Your task to perform on an android device: stop showing notifications on the lock screen Image 0: 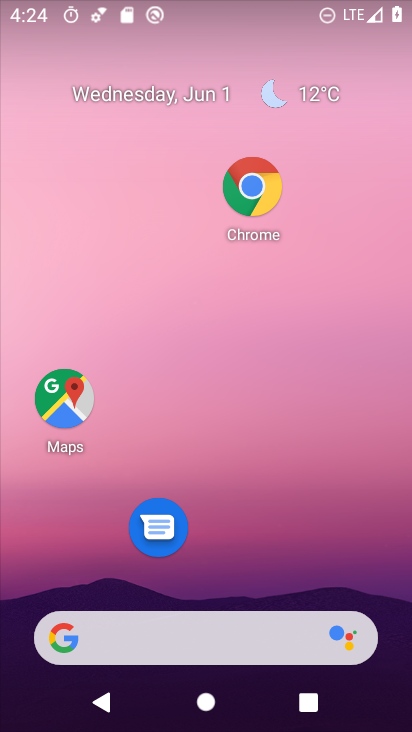
Step 0: drag from (260, 642) to (286, 375)
Your task to perform on an android device: stop showing notifications on the lock screen Image 1: 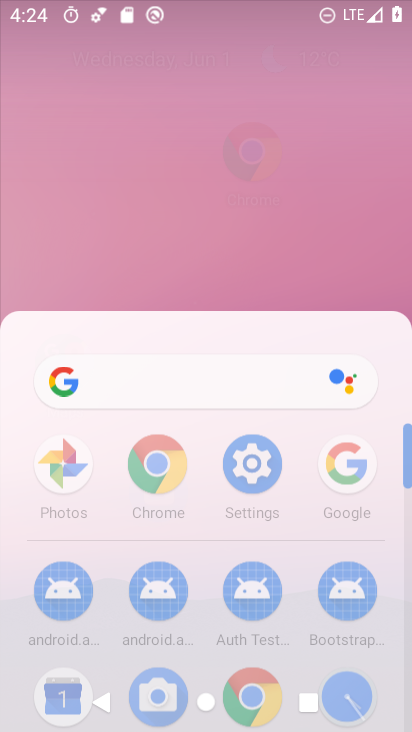
Step 1: click (326, 181)
Your task to perform on an android device: stop showing notifications on the lock screen Image 2: 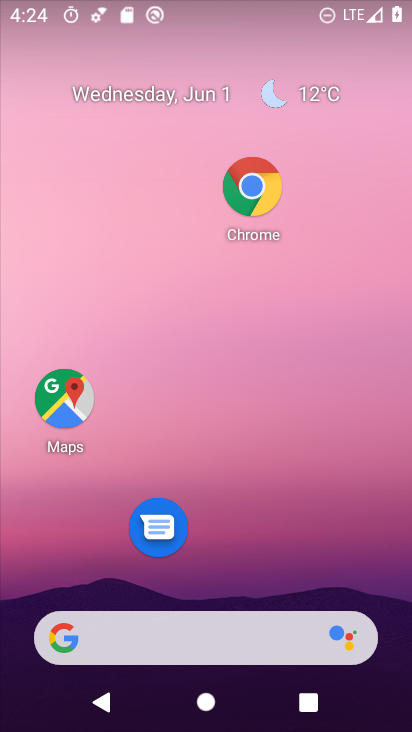
Step 2: drag from (210, 664) to (300, 87)
Your task to perform on an android device: stop showing notifications on the lock screen Image 3: 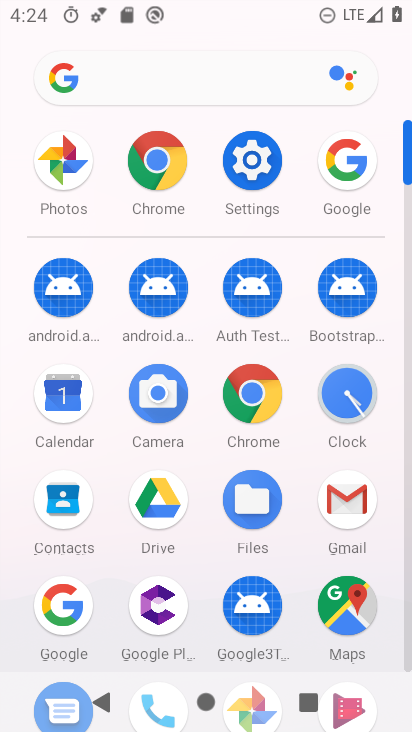
Step 3: click (254, 192)
Your task to perform on an android device: stop showing notifications on the lock screen Image 4: 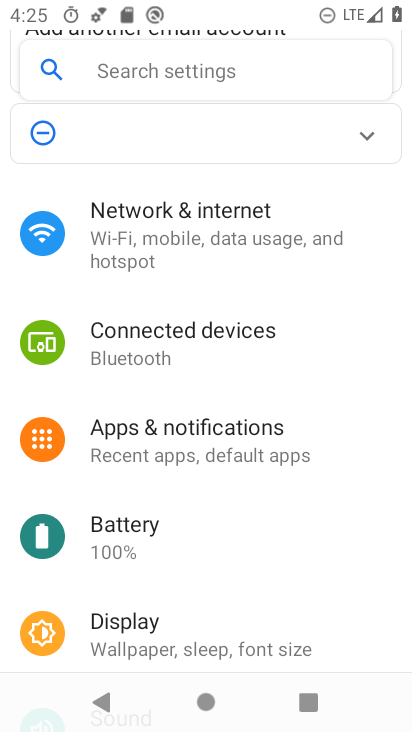
Step 4: click (205, 451)
Your task to perform on an android device: stop showing notifications on the lock screen Image 5: 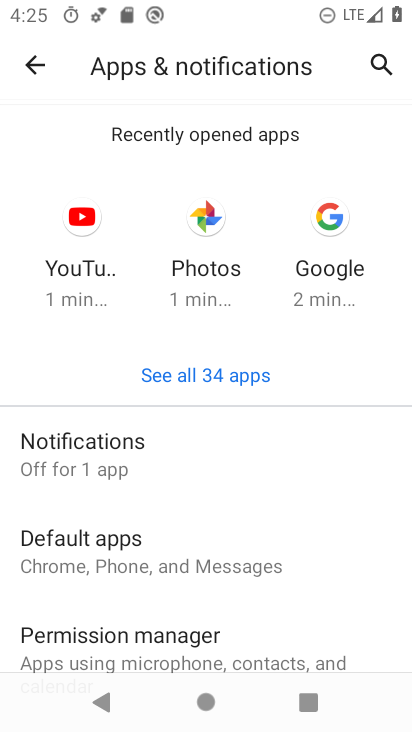
Step 5: click (204, 452)
Your task to perform on an android device: stop showing notifications on the lock screen Image 6: 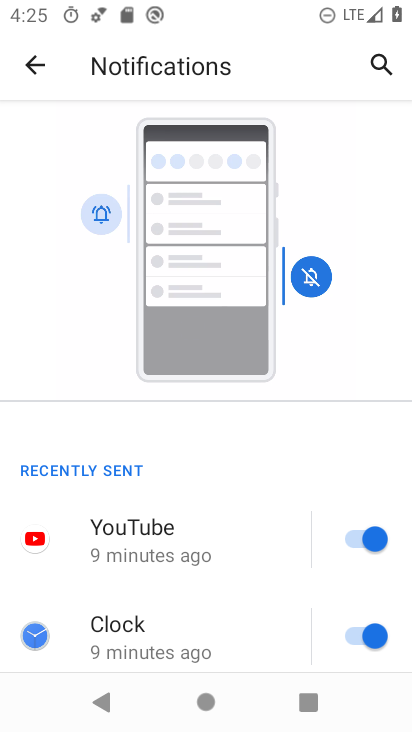
Step 6: drag from (286, 83) to (304, 34)
Your task to perform on an android device: stop showing notifications on the lock screen Image 7: 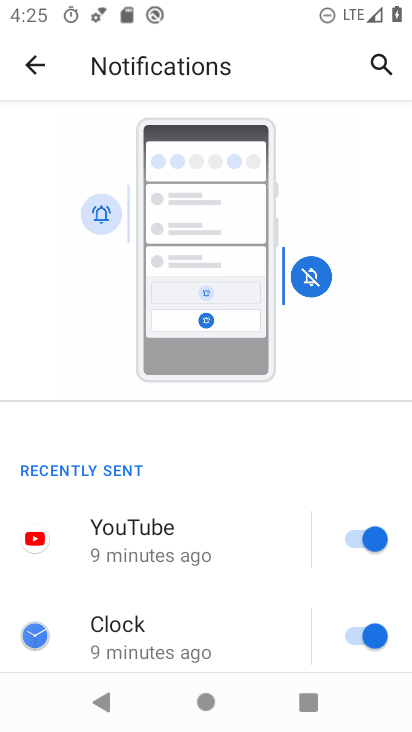
Step 7: drag from (186, 544) to (289, 71)
Your task to perform on an android device: stop showing notifications on the lock screen Image 8: 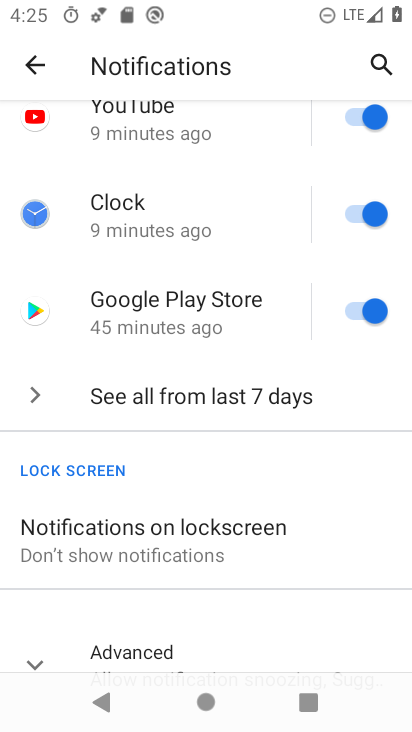
Step 8: drag from (228, 573) to (251, 238)
Your task to perform on an android device: stop showing notifications on the lock screen Image 9: 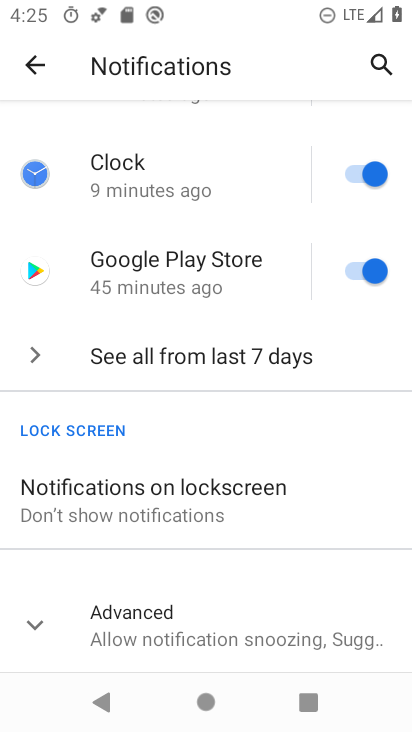
Step 9: click (234, 517)
Your task to perform on an android device: stop showing notifications on the lock screen Image 10: 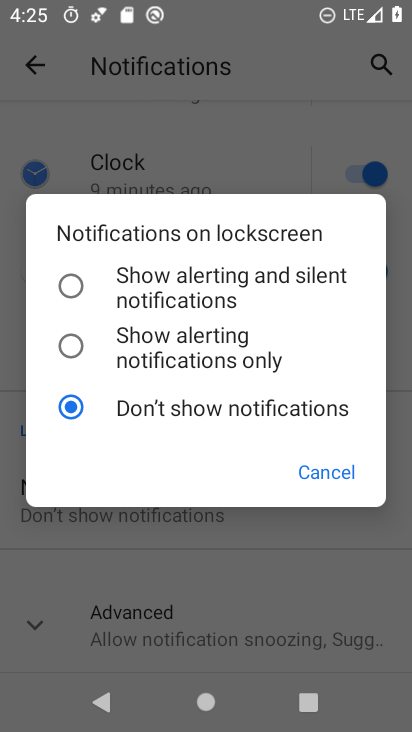
Step 10: task complete